Your task to perform on an android device: install app "Instagram" Image 0: 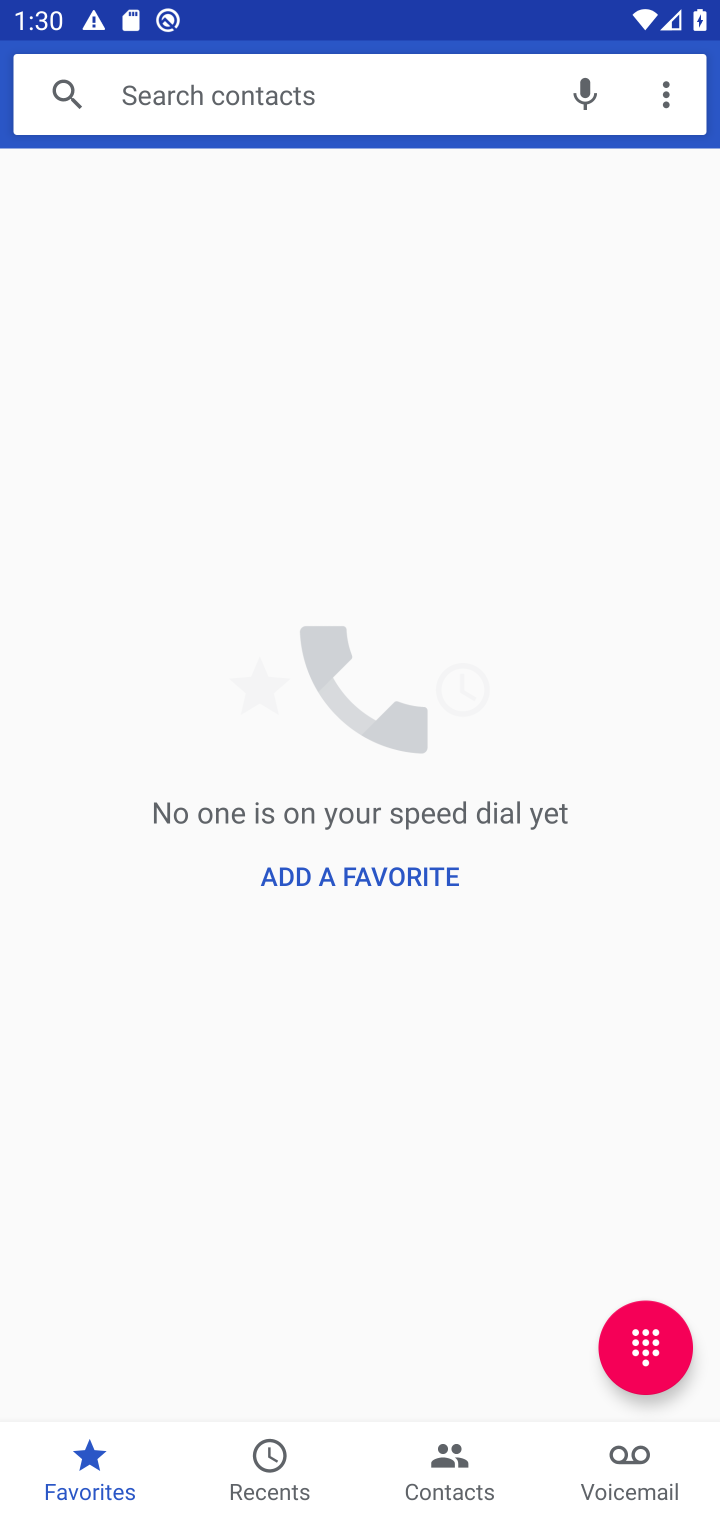
Step 0: press home button
Your task to perform on an android device: install app "Instagram" Image 1: 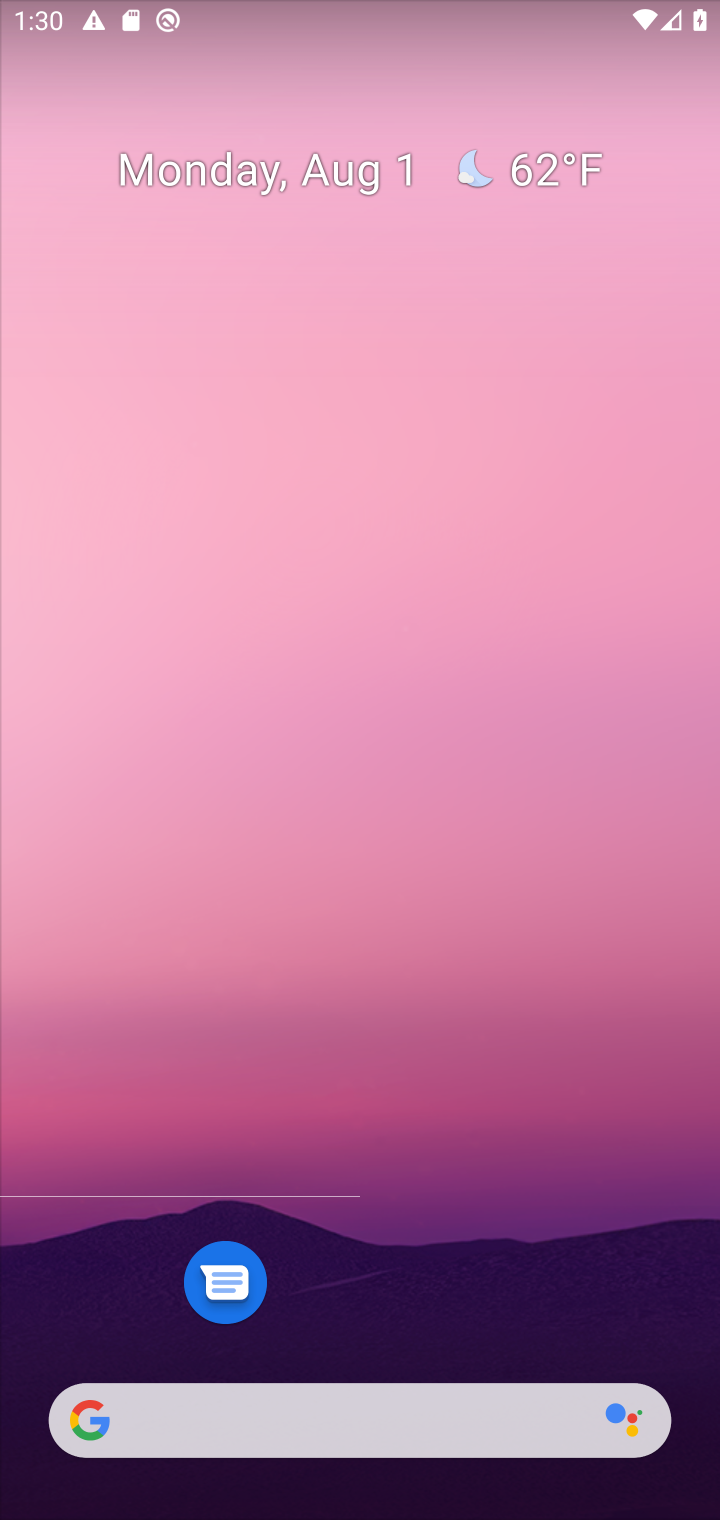
Step 1: drag from (397, 1339) to (509, 1008)
Your task to perform on an android device: install app "Instagram" Image 2: 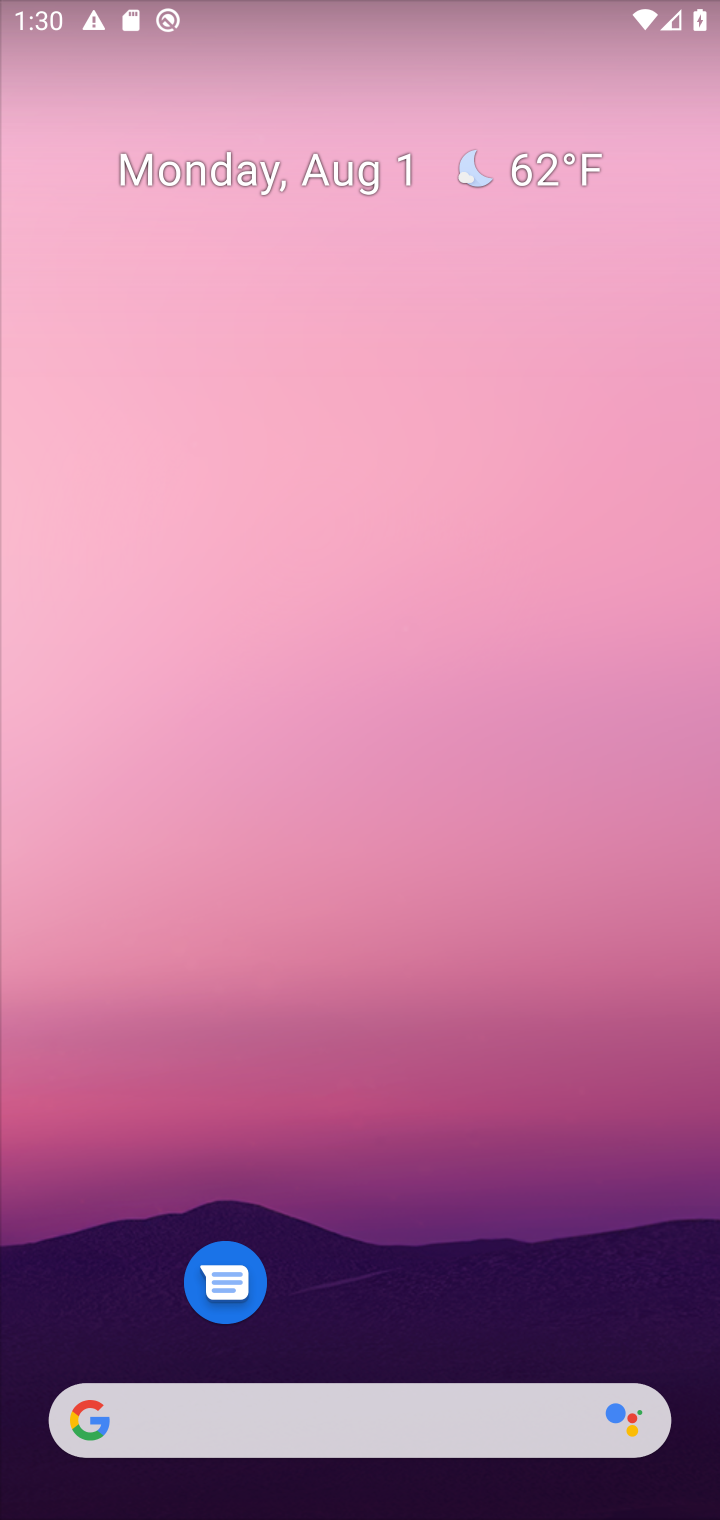
Step 2: drag from (324, 18) to (511, 1)
Your task to perform on an android device: install app "Instagram" Image 3: 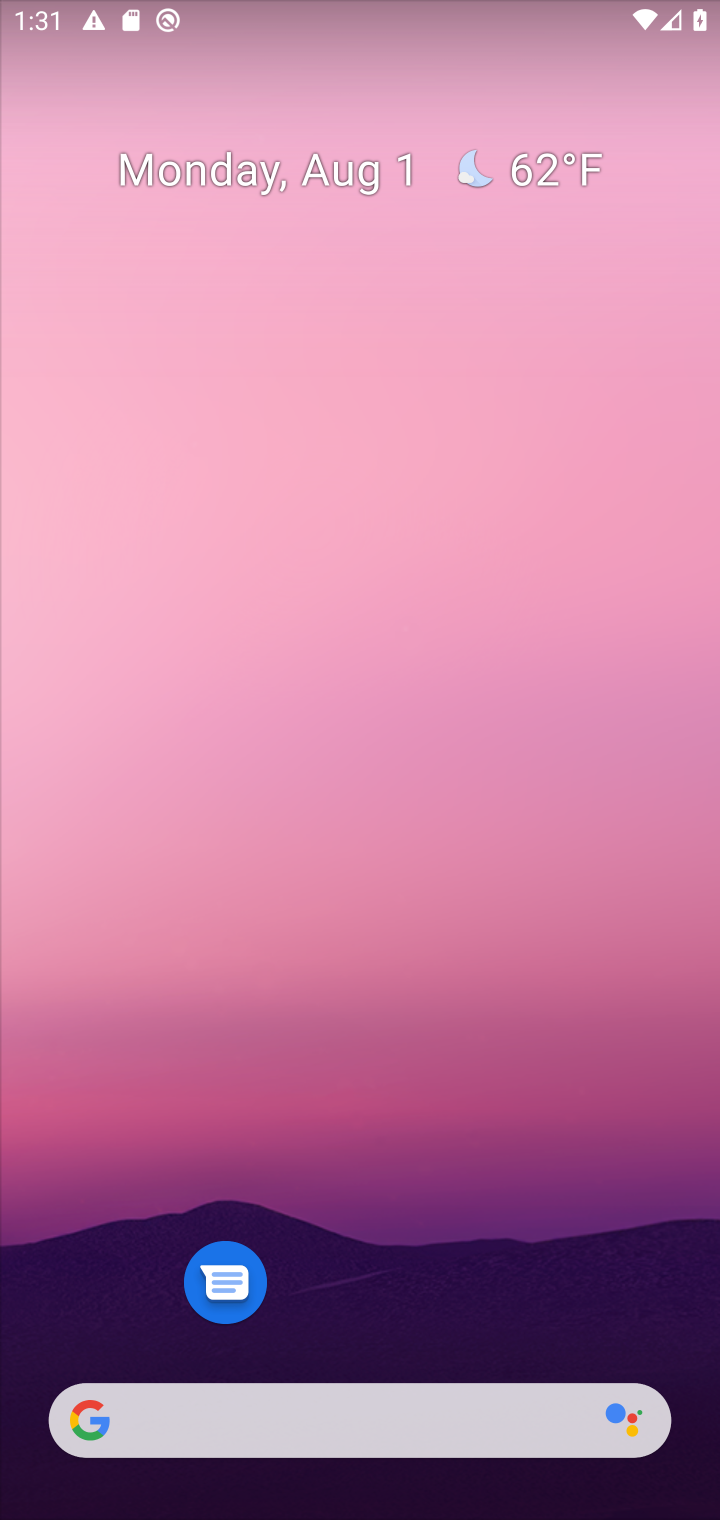
Step 3: drag from (339, 1344) to (304, 37)
Your task to perform on an android device: install app "Instagram" Image 4: 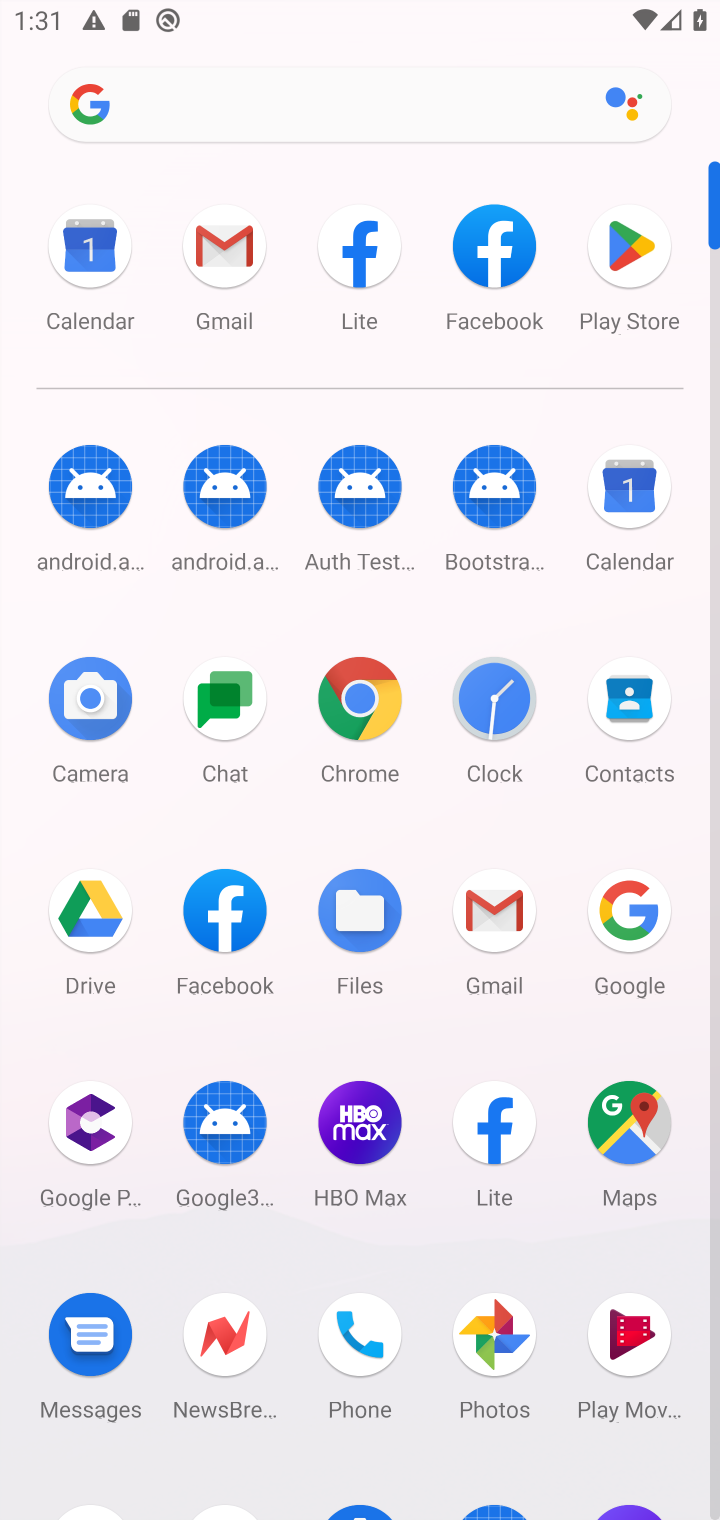
Step 4: click (631, 234)
Your task to perform on an android device: install app "Instagram" Image 5: 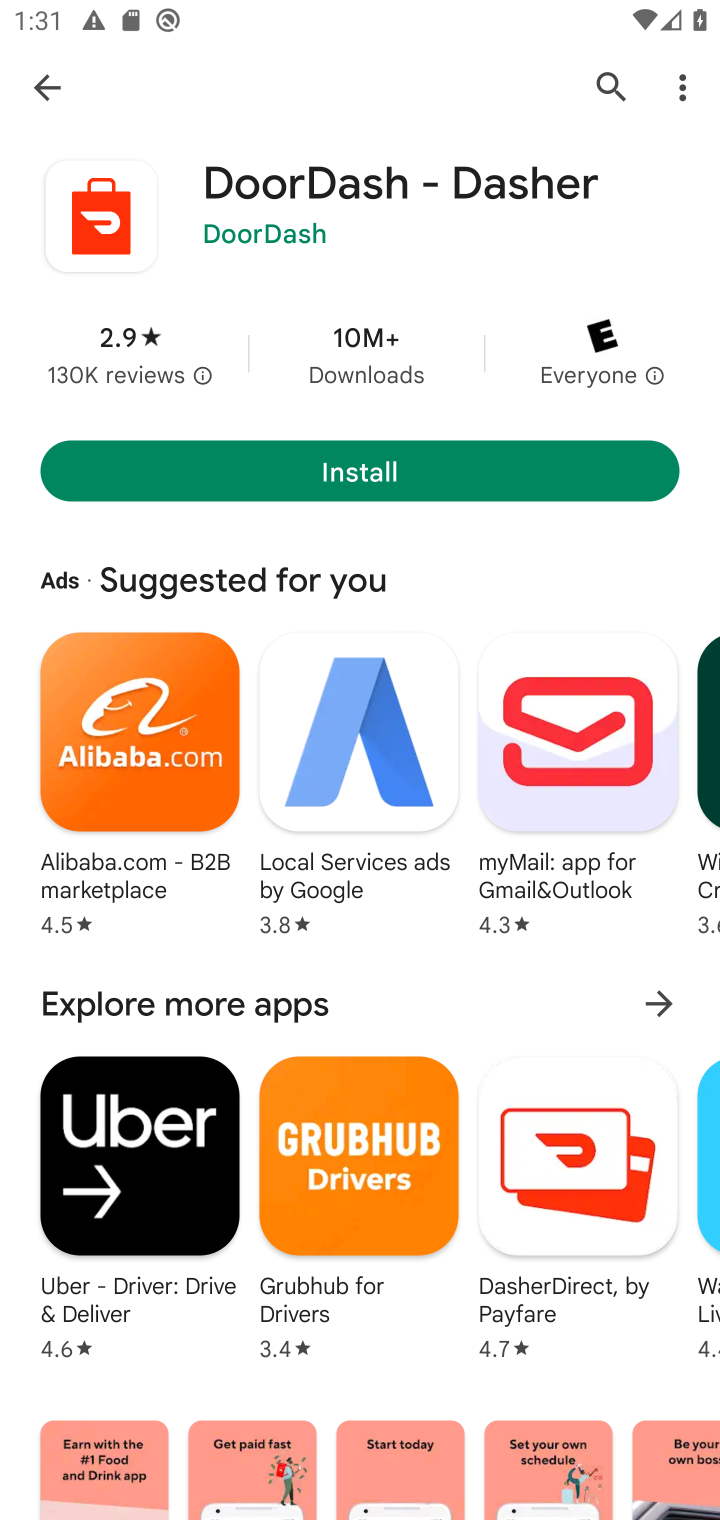
Step 5: click (59, 82)
Your task to perform on an android device: install app "Instagram" Image 6: 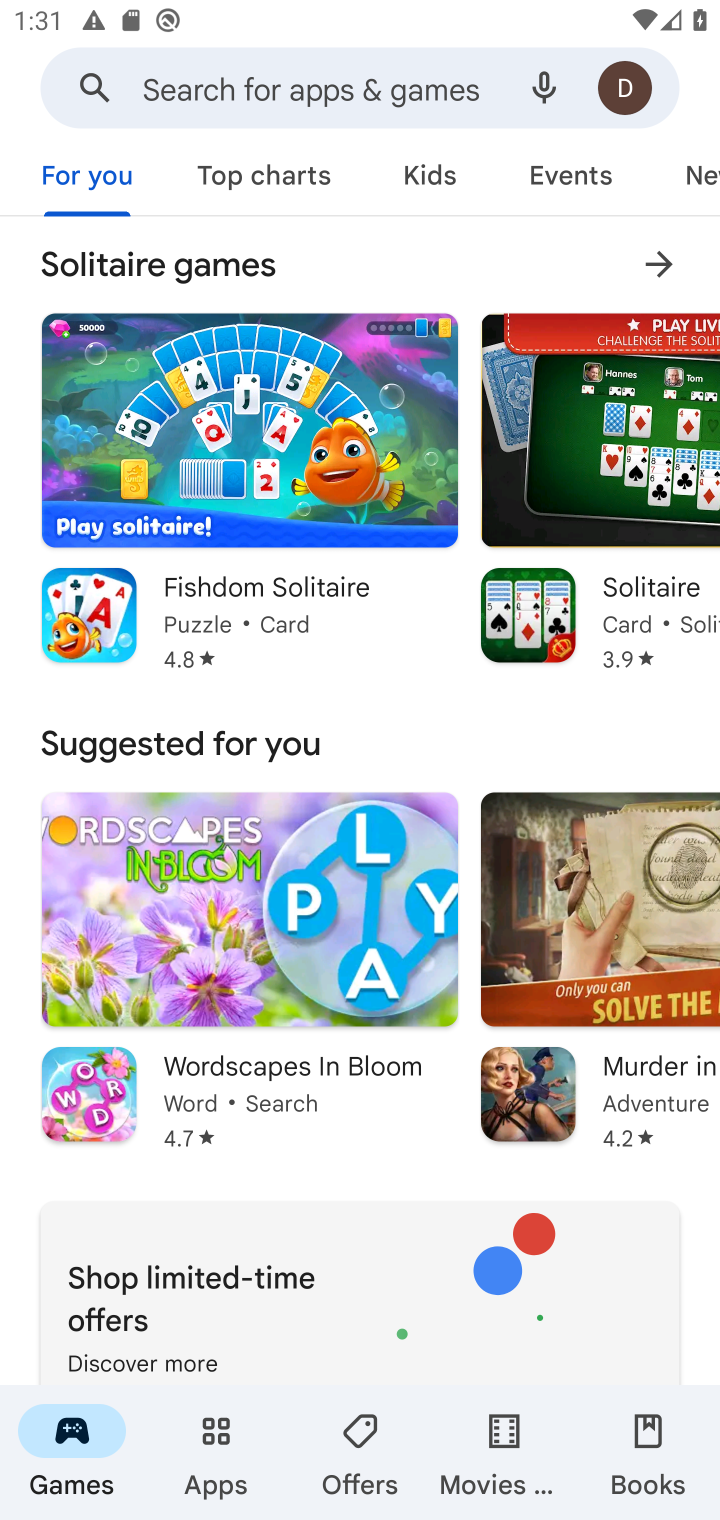
Step 6: click (184, 97)
Your task to perform on an android device: install app "Instagram" Image 7: 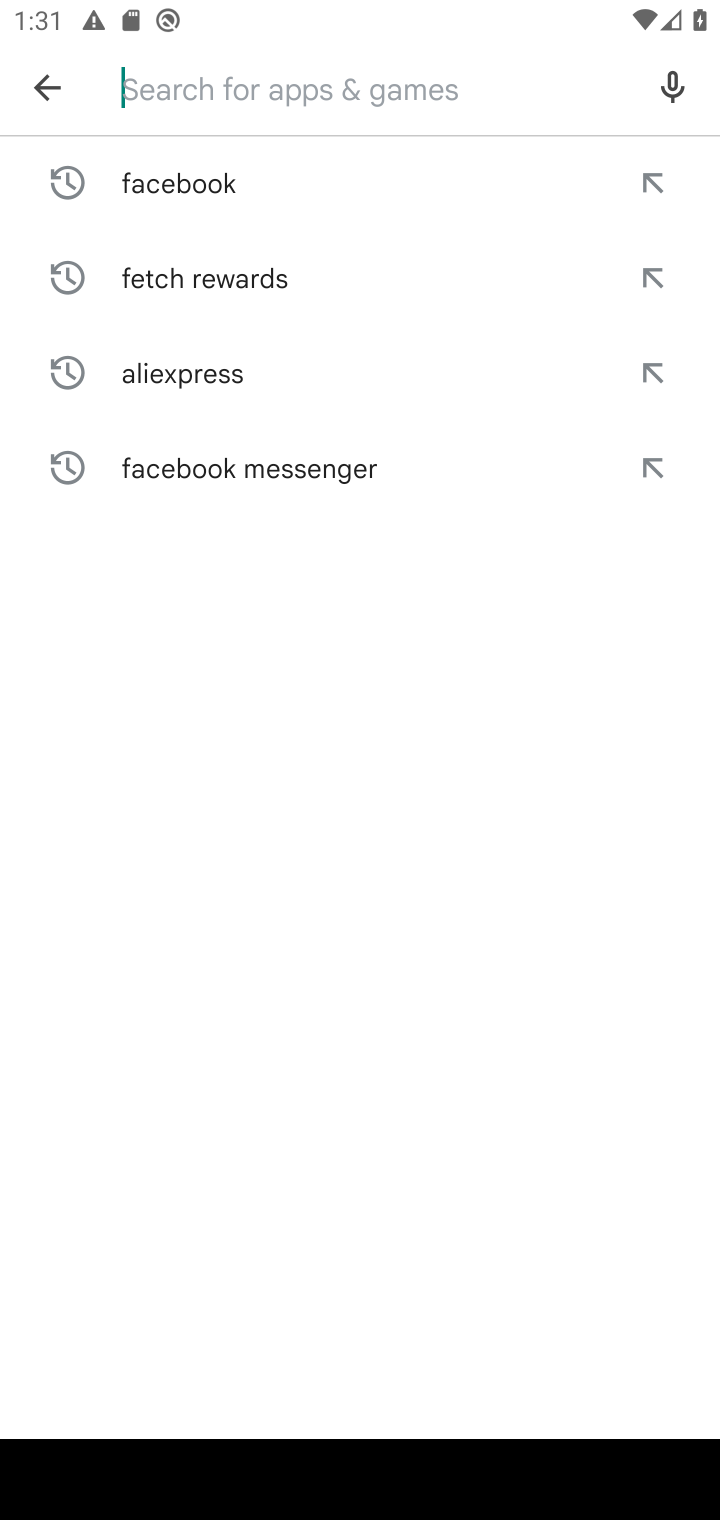
Step 7: type "Instagram"
Your task to perform on an android device: install app "Instagram" Image 8: 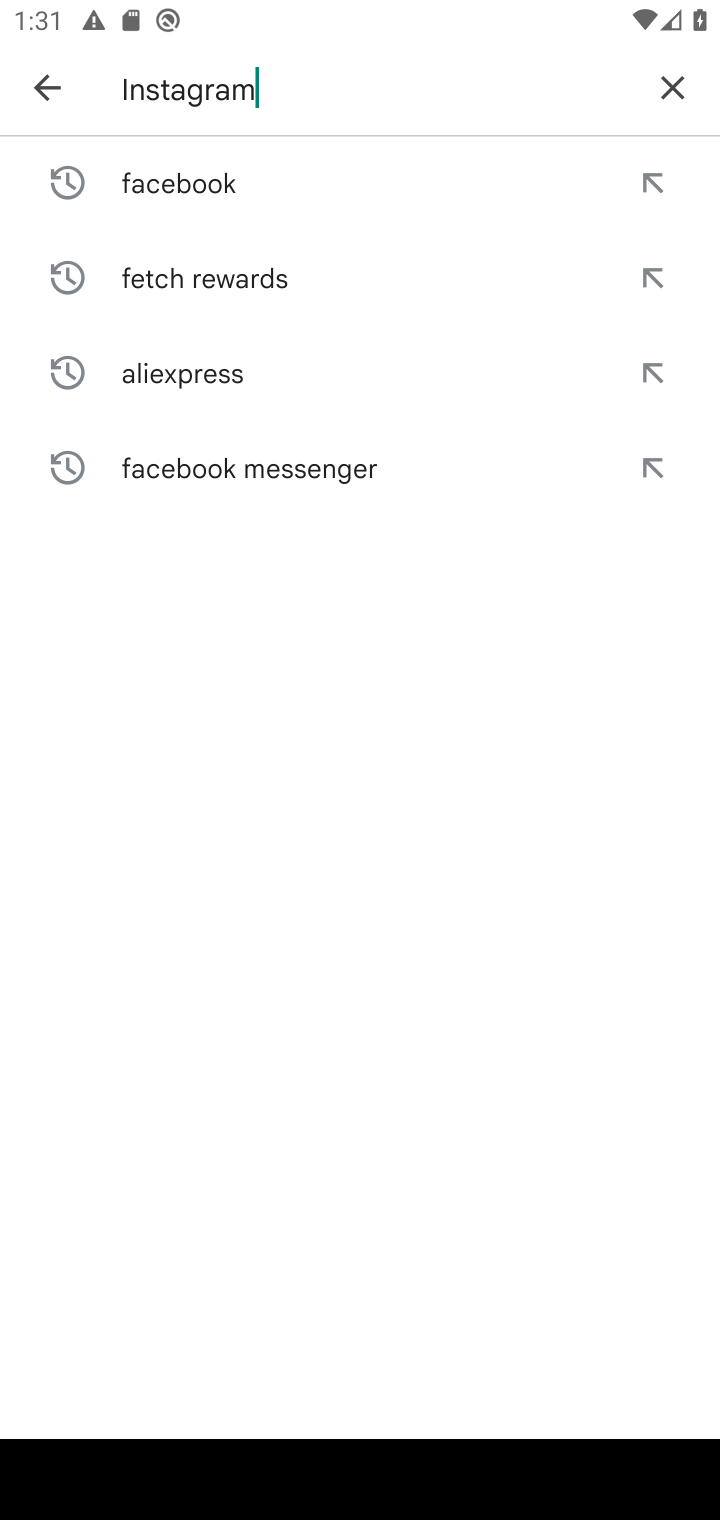
Step 8: type ""
Your task to perform on an android device: install app "Instagram" Image 9: 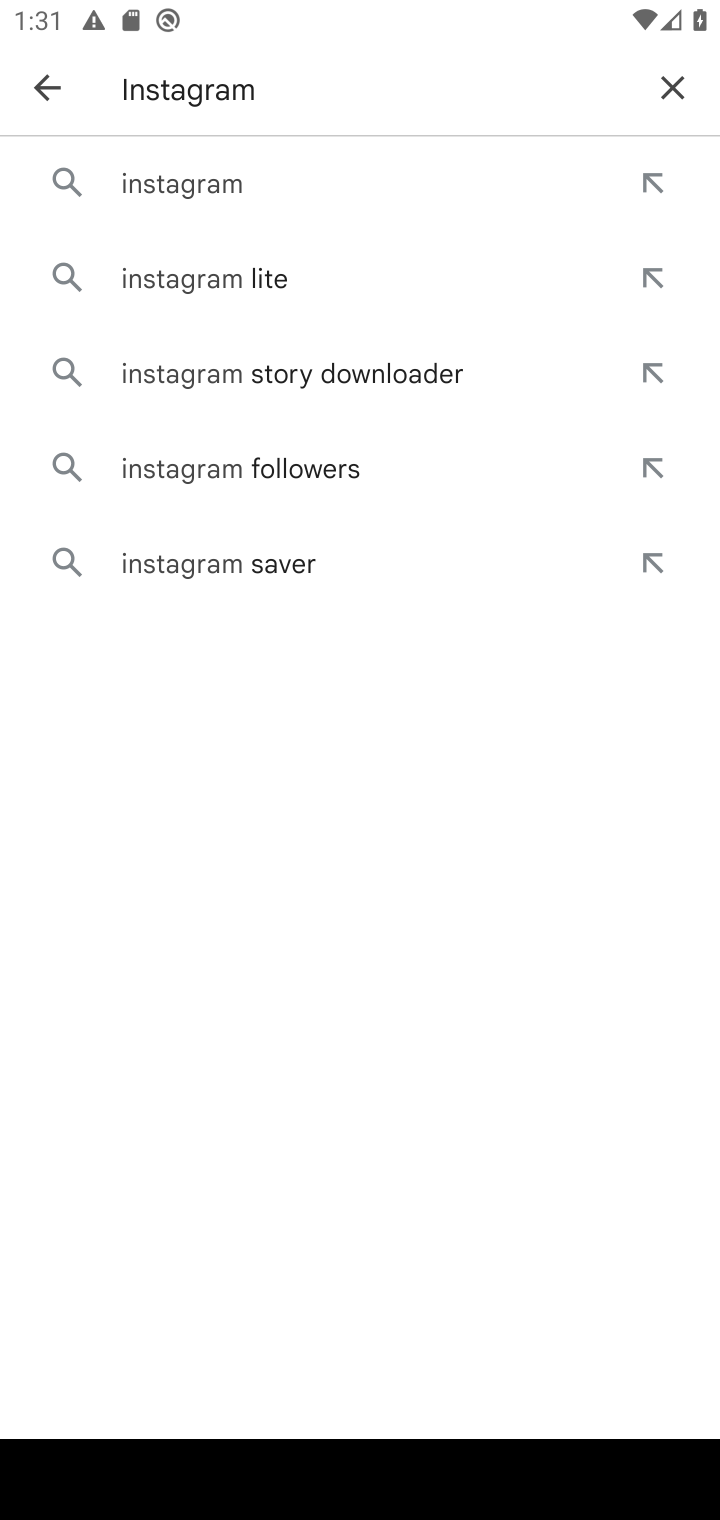
Step 9: click (156, 184)
Your task to perform on an android device: install app "Instagram" Image 10: 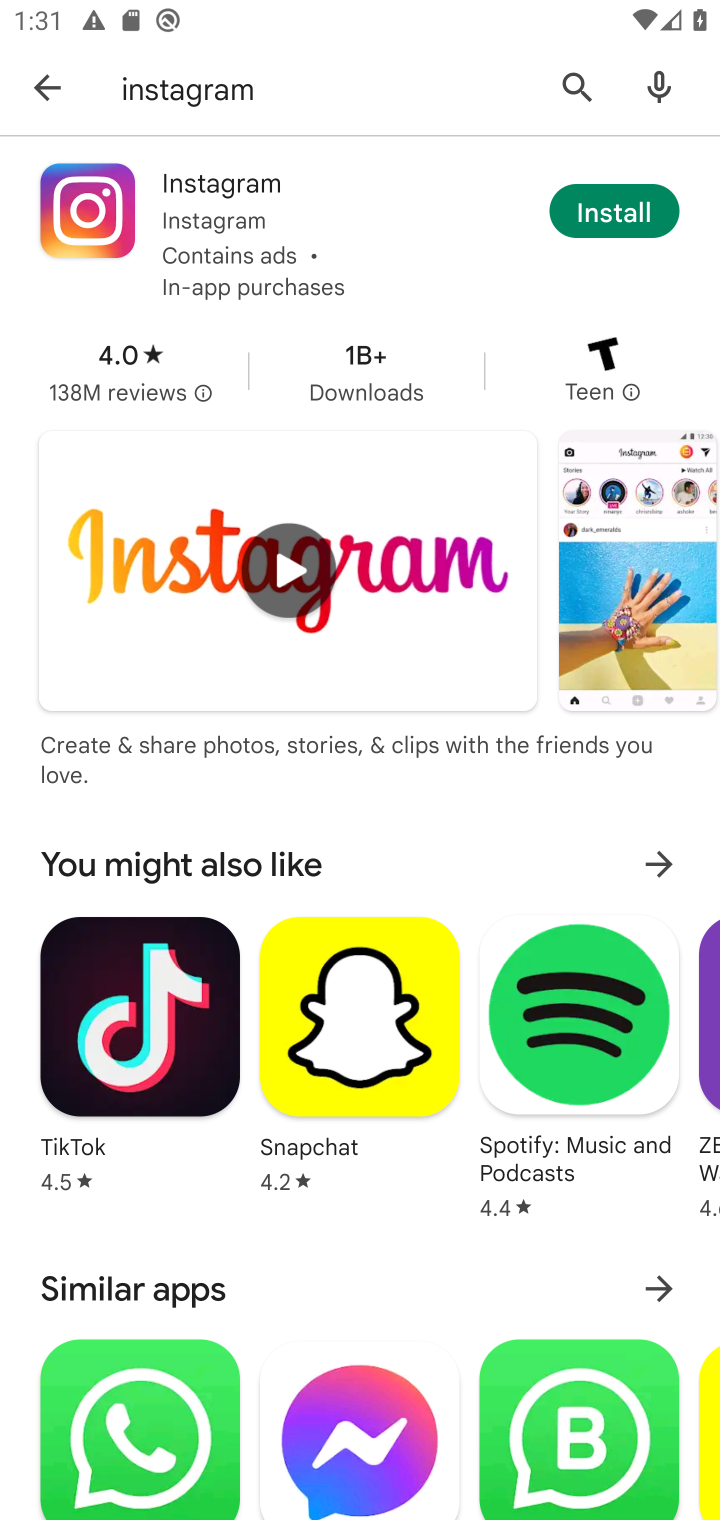
Step 10: click (576, 221)
Your task to perform on an android device: install app "Instagram" Image 11: 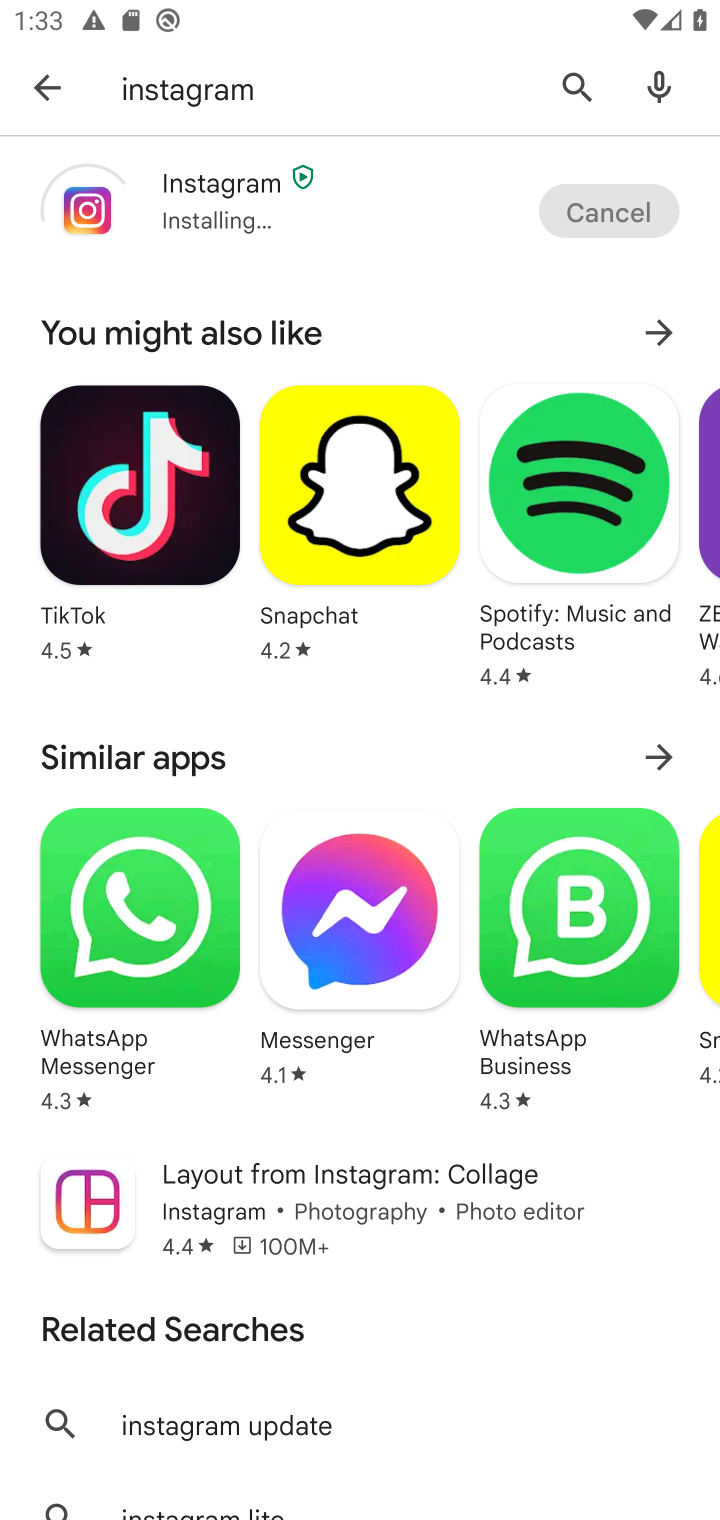
Step 11: drag from (91, 851) to (91, 952)
Your task to perform on an android device: install app "Instagram" Image 12: 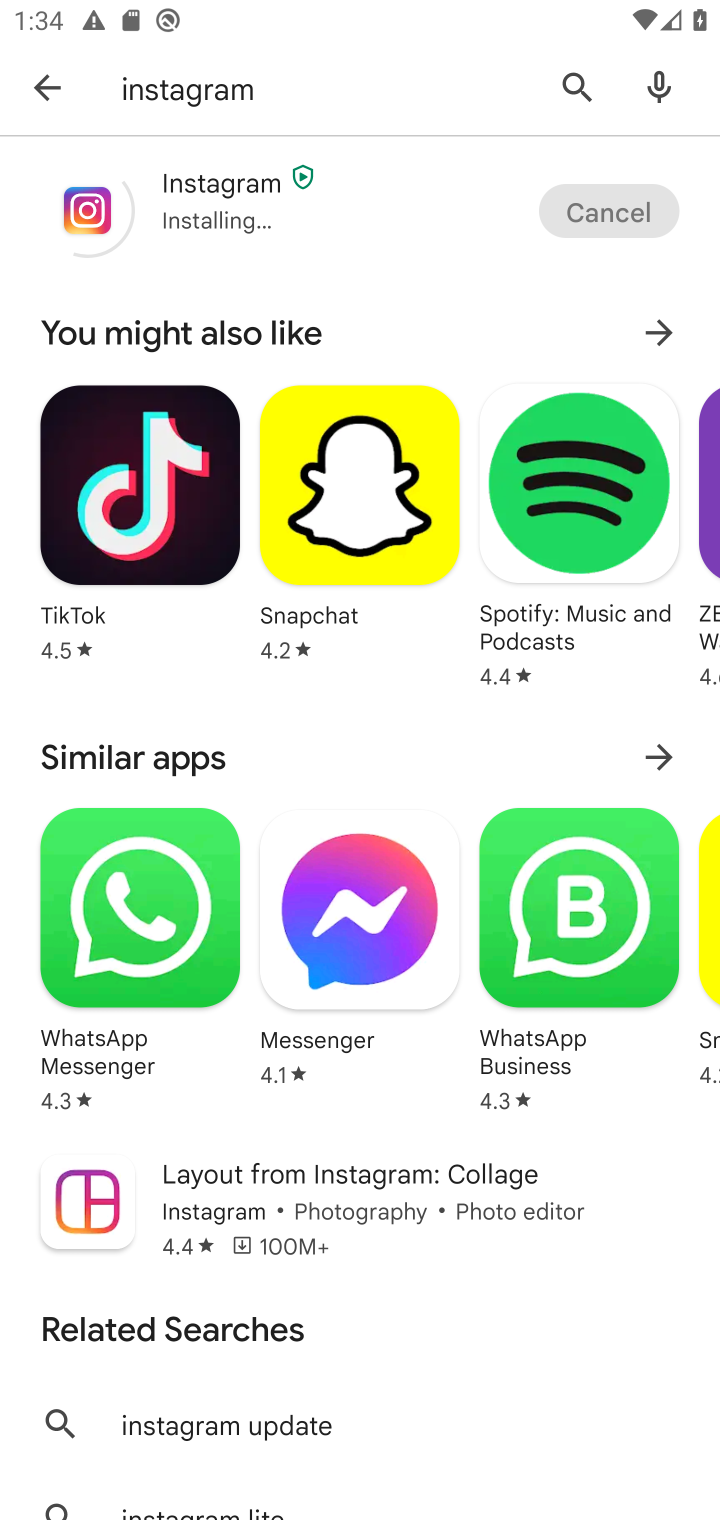
Step 12: click (212, 182)
Your task to perform on an android device: install app "Instagram" Image 13: 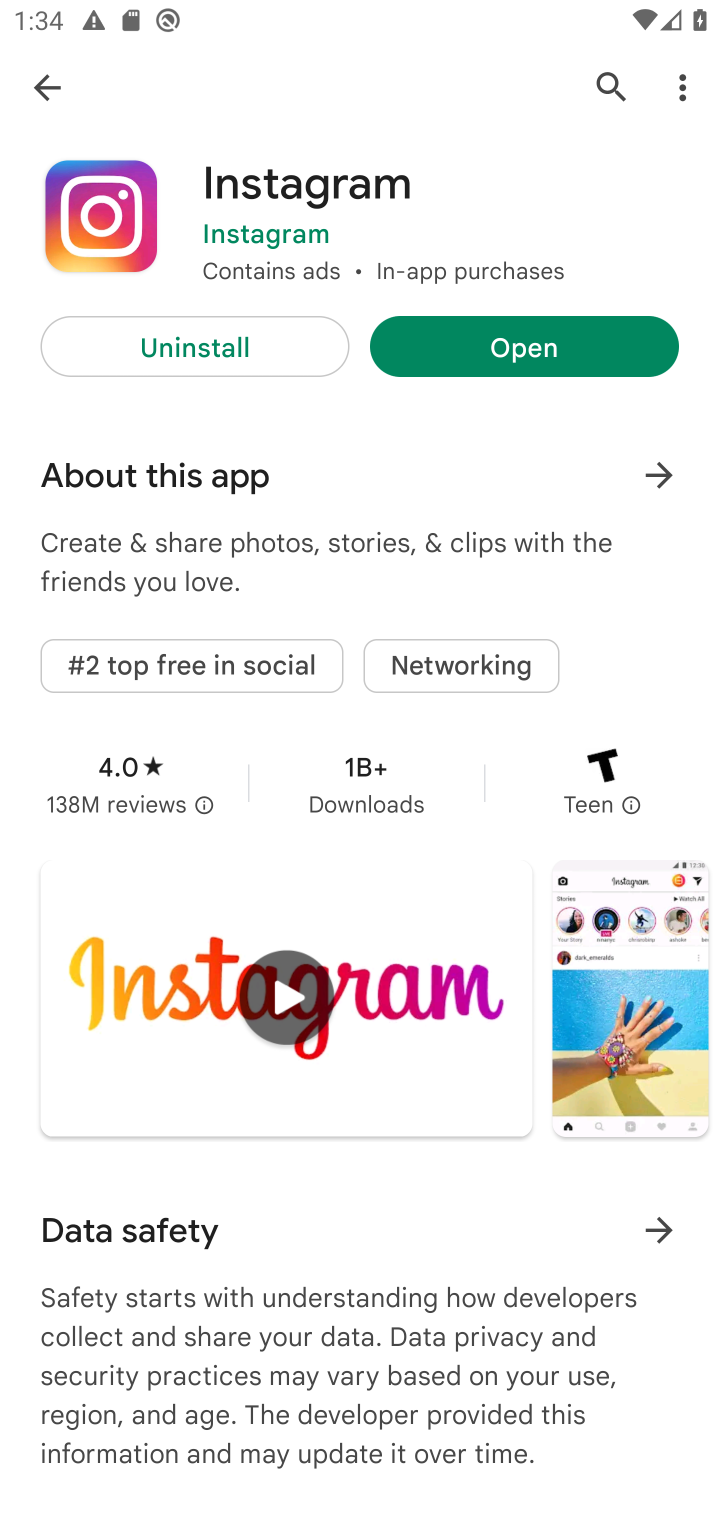
Step 13: task complete